Your task to perform on an android device: Go to Wikipedia Image 0: 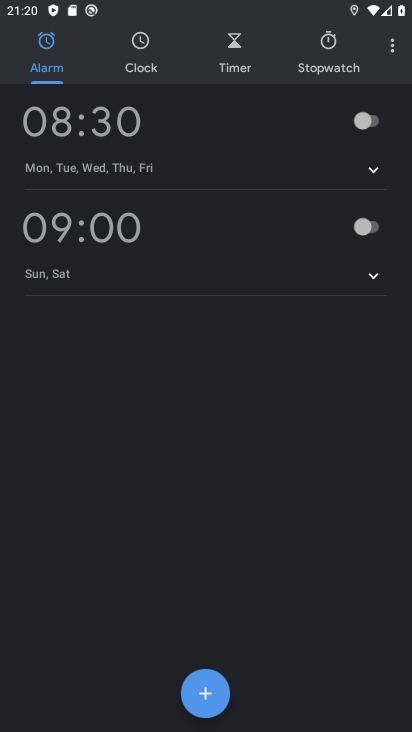
Step 0: press home button
Your task to perform on an android device: Go to Wikipedia Image 1: 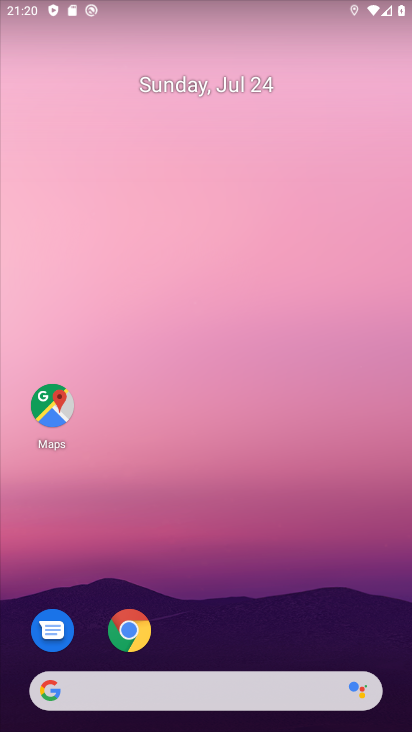
Step 1: click (127, 625)
Your task to perform on an android device: Go to Wikipedia Image 2: 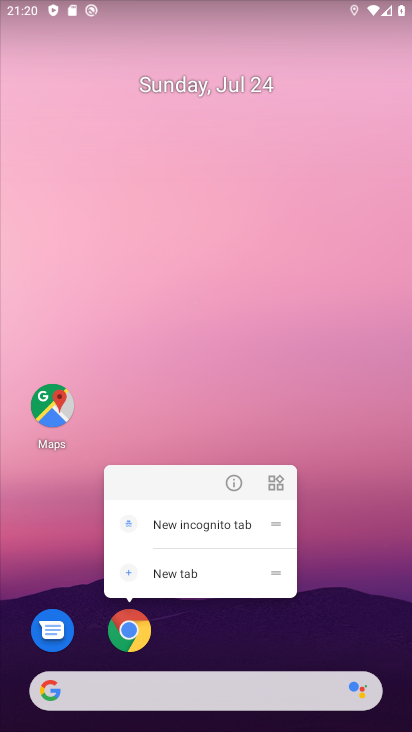
Step 2: click (136, 644)
Your task to perform on an android device: Go to Wikipedia Image 3: 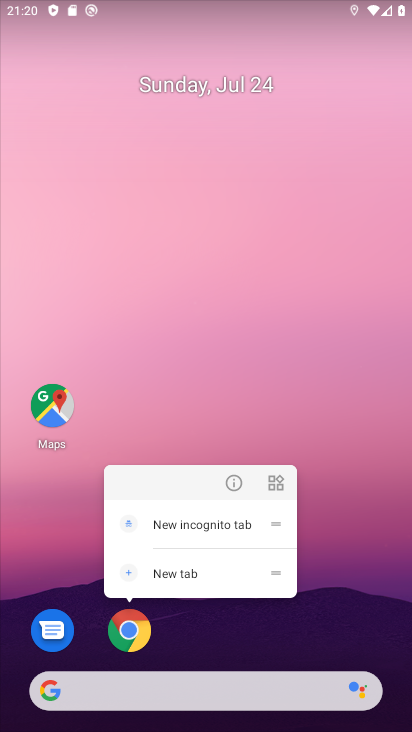
Step 3: click (136, 623)
Your task to perform on an android device: Go to Wikipedia Image 4: 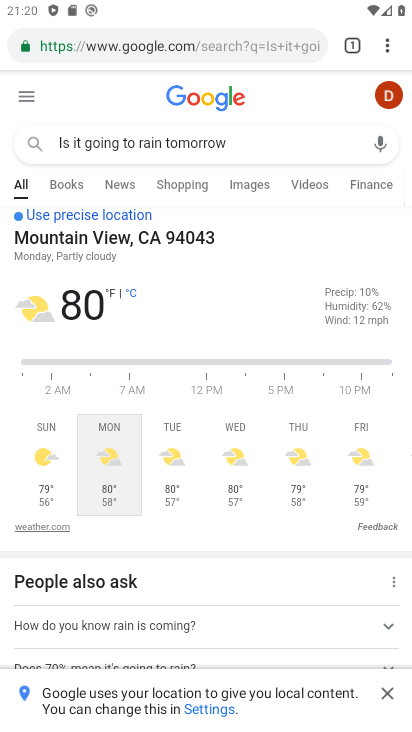
Step 4: click (398, 41)
Your task to perform on an android device: Go to Wikipedia Image 5: 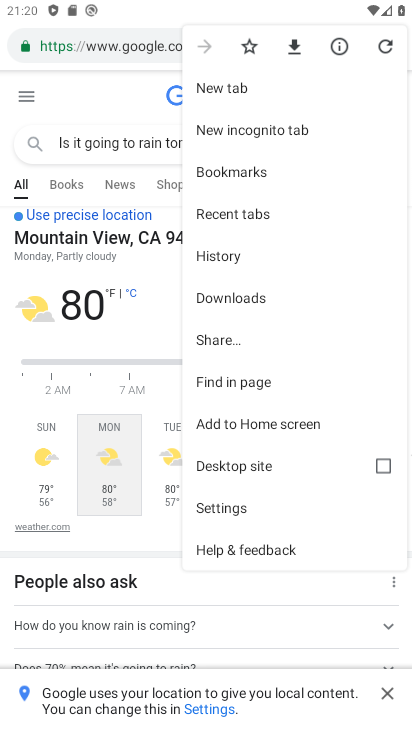
Step 5: click (215, 86)
Your task to perform on an android device: Go to Wikipedia Image 6: 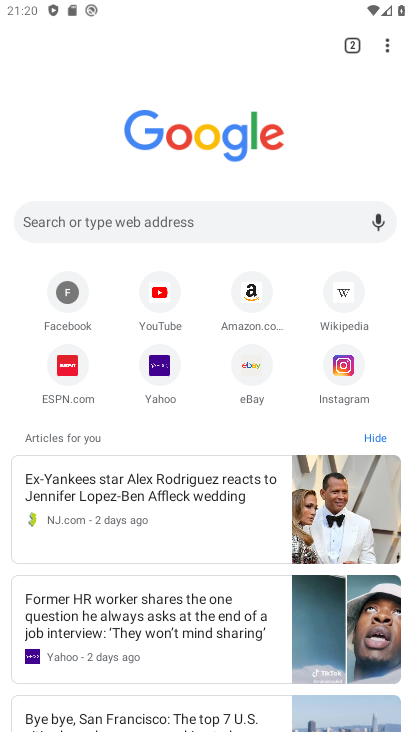
Step 6: click (347, 287)
Your task to perform on an android device: Go to Wikipedia Image 7: 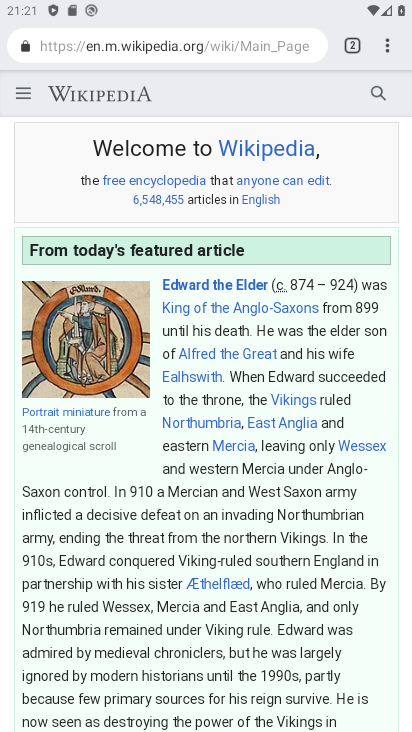
Step 7: task complete